Your task to perform on an android device: snooze an email in the gmail app Image 0: 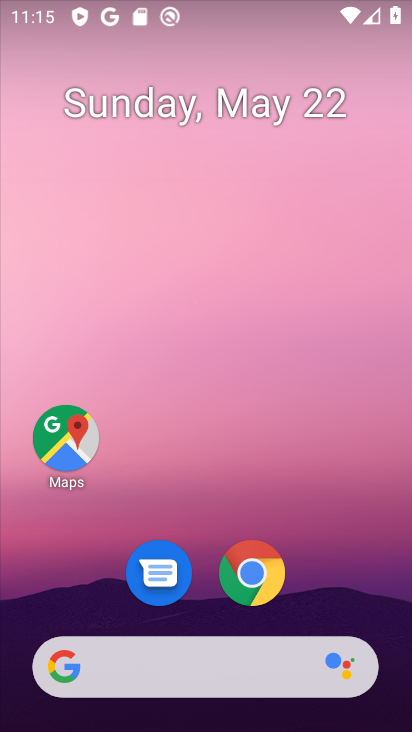
Step 0: press home button
Your task to perform on an android device: snooze an email in the gmail app Image 1: 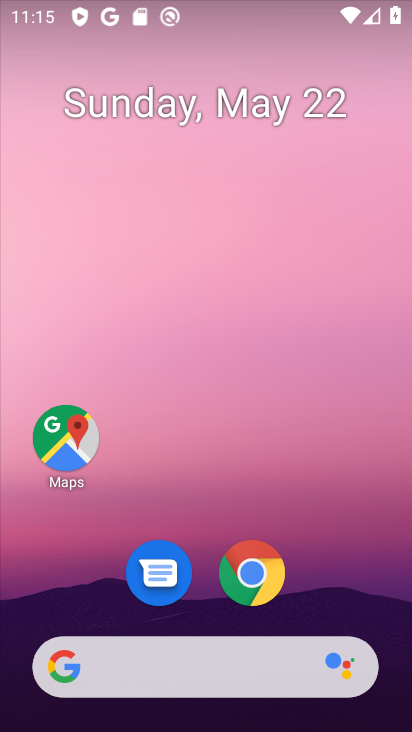
Step 1: drag from (174, 676) to (291, 132)
Your task to perform on an android device: snooze an email in the gmail app Image 2: 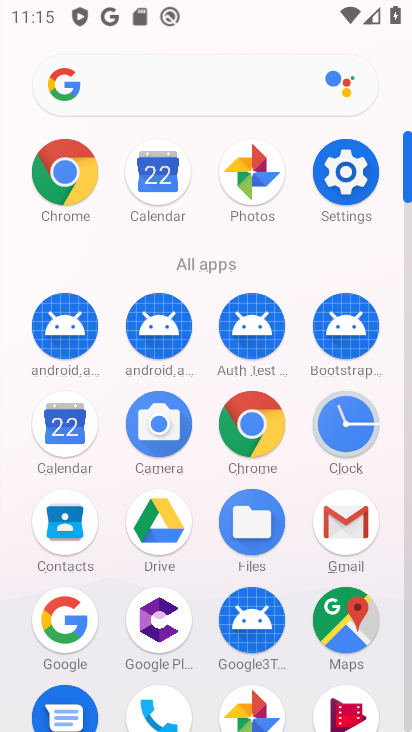
Step 2: click (344, 528)
Your task to perform on an android device: snooze an email in the gmail app Image 3: 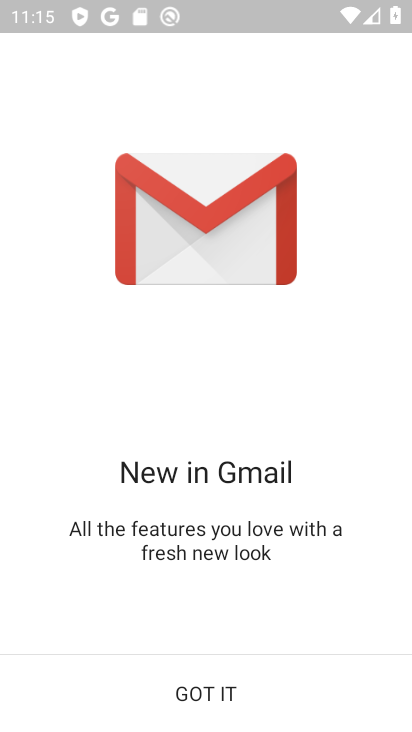
Step 3: click (211, 688)
Your task to perform on an android device: snooze an email in the gmail app Image 4: 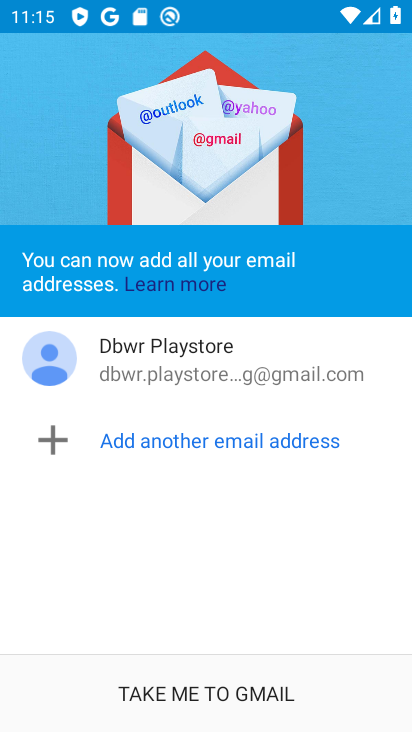
Step 4: click (211, 688)
Your task to perform on an android device: snooze an email in the gmail app Image 5: 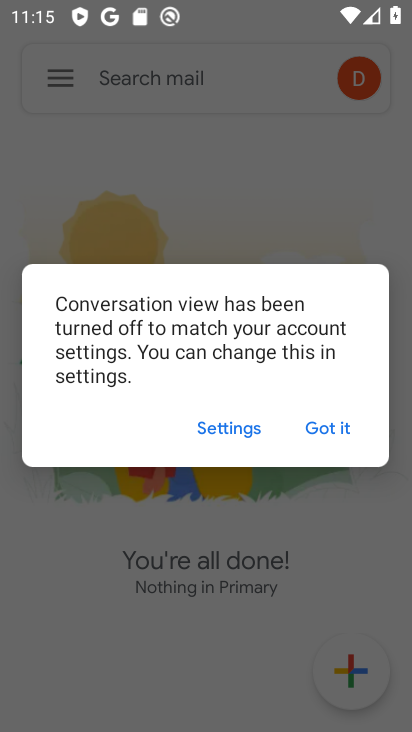
Step 5: click (334, 430)
Your task to perform on an android device: snooze an email in the gmail app Image 6: 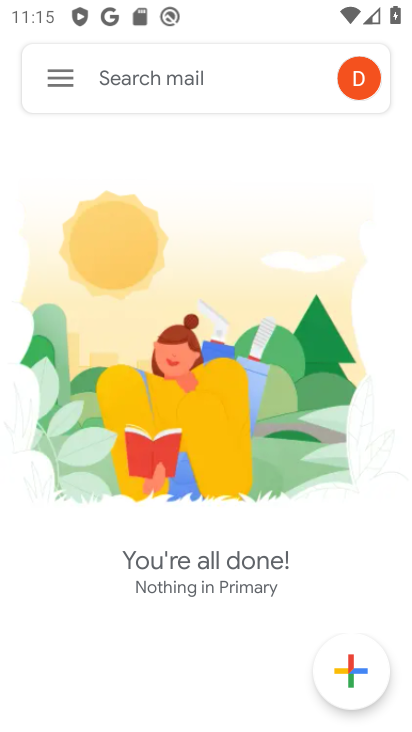
Step 6: task complete